Your task to perform on an android device: make emails show in primary in the gmail app Image 0: 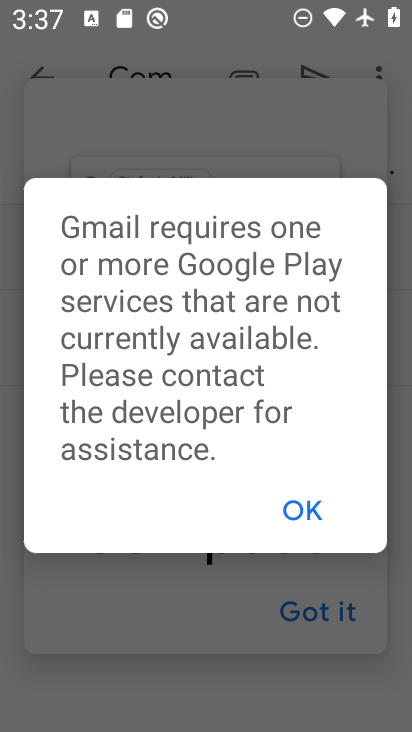
Step 0: press home button
Your task to perform on an android device: make emails show in primary in the gmail app Image 1: 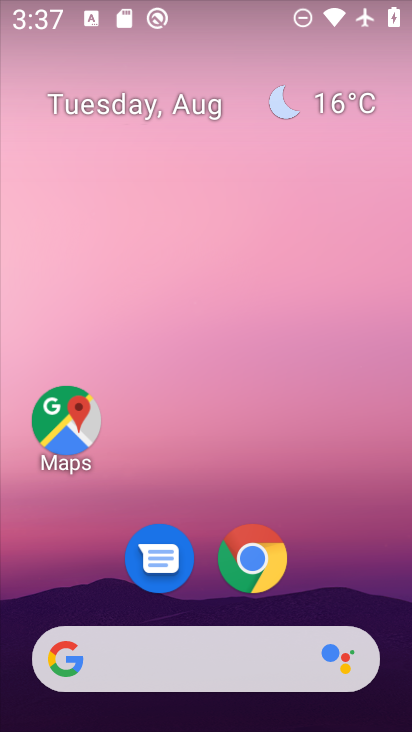
Step 1: drag from (205, 497) to (186, 92)
Your task to perform on an android device: make emails show in primary in the gmail app Image 2: 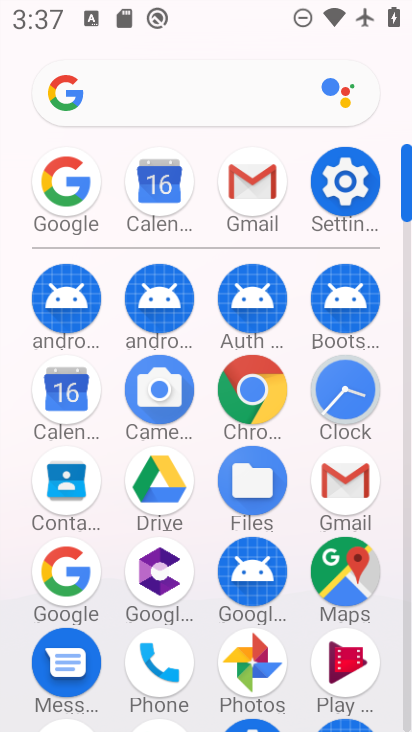
Step 2: click (241, 187)
Your task to perform on an android device: make emails show in primary in the gmail app Image 3: 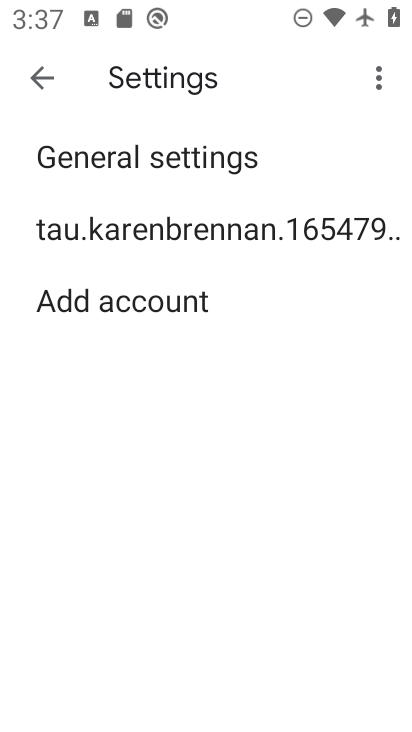
Step 3: click (200, 235)
Your task to perform on an android device: make emails show in primary in the gmail app Image 4: 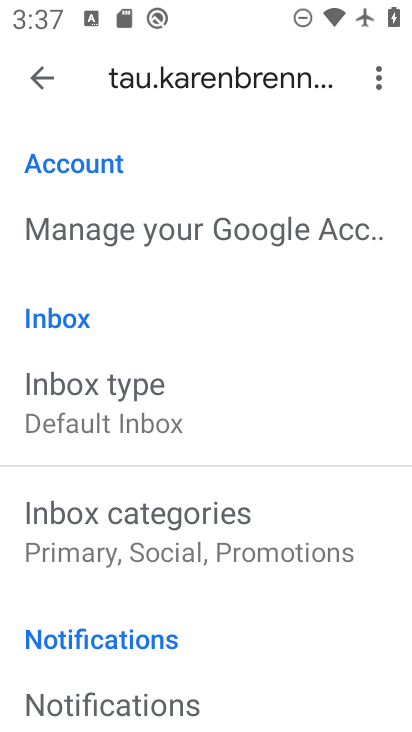
Step 4: click (160, 366)
Your task to perform on an android device: make emails show in primary in the gmail app Image 5: 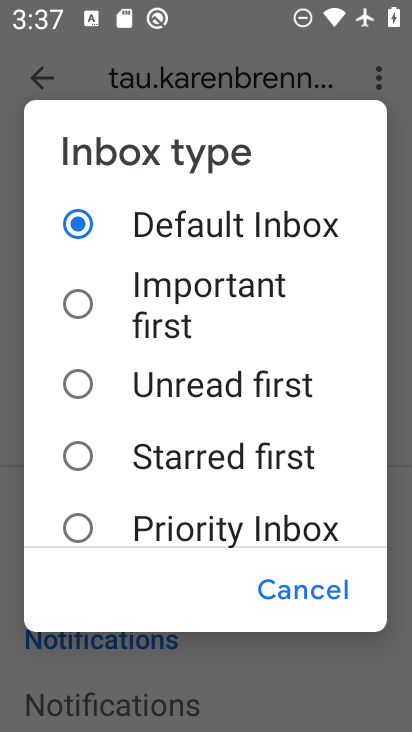
Step 5: task complete